Your task to perform on an android device: Toggle the flashlight Image 0: 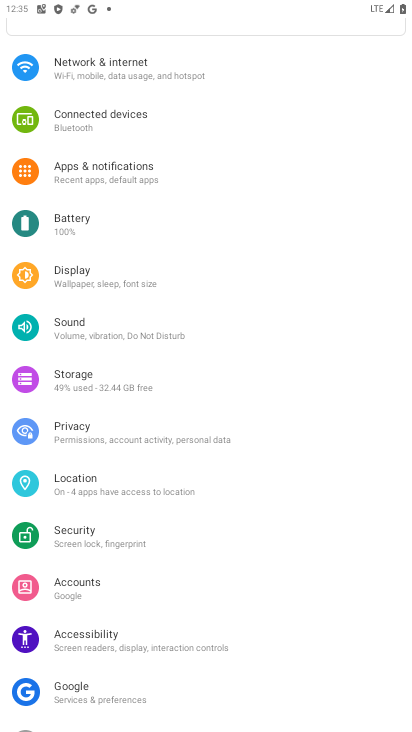
Step 0: press home button
Your task to perform on an android device: Toggle the flashlight Image 1: 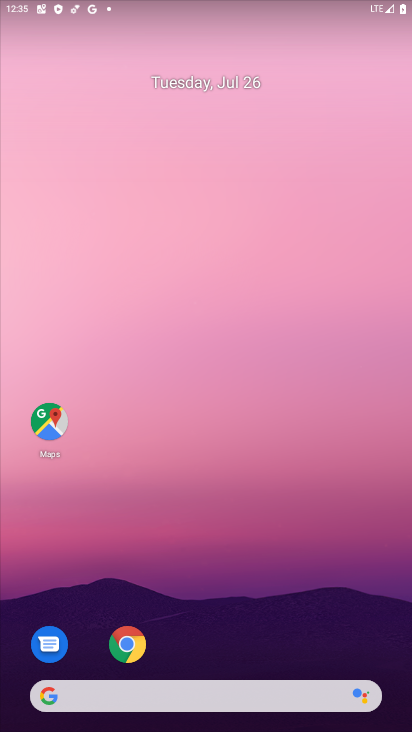
Step 1: task complete